Your task to perform on an android device: Open display settings Image 0: 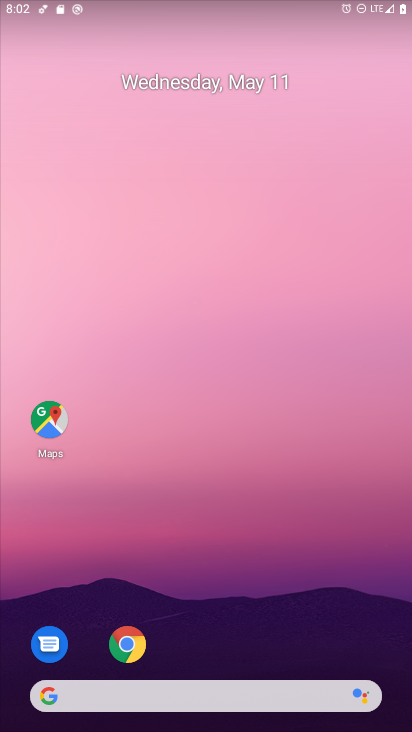
Step 0: drag from (209, 588) to (146, 152)
Your task to perform on an android device: Open display settings Image 1: 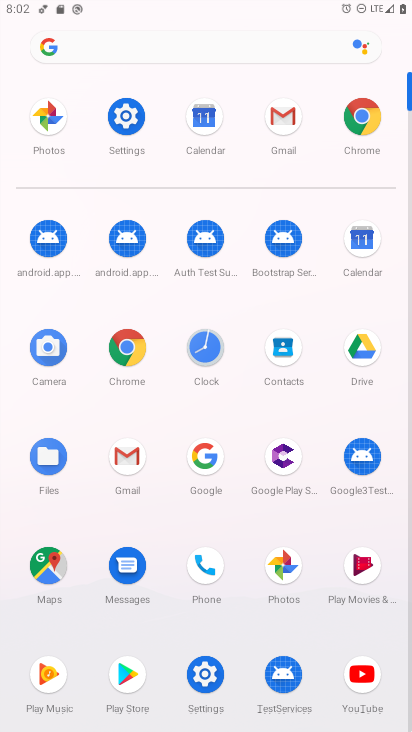
Step 1: click (123, 119)
Your task to perform on an android device: Open display settings Image 2: 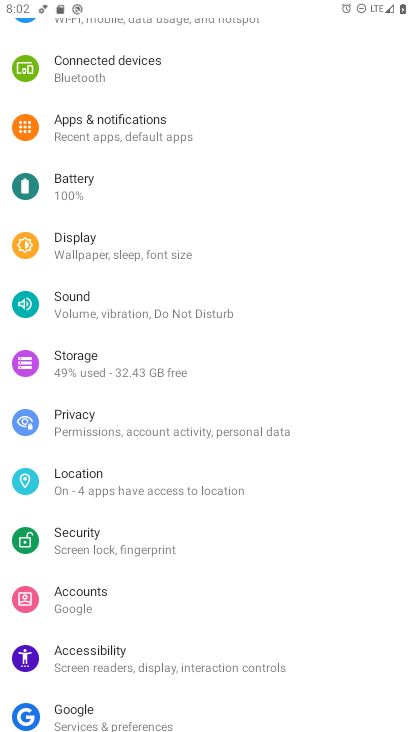
Step 2: click (62, 235)
Your task to perform on an android device: Open display settings Image 3: 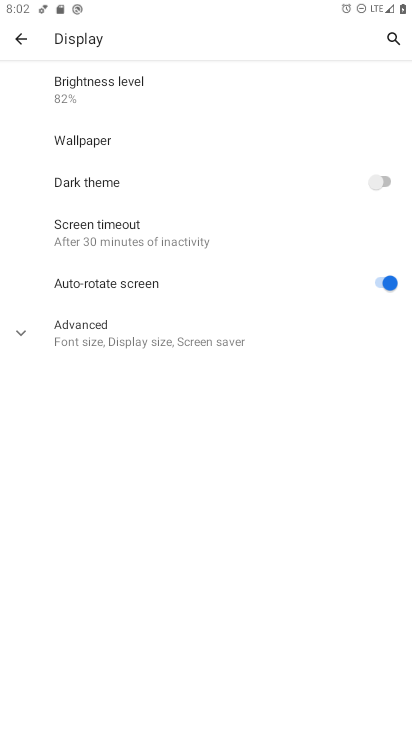
Step 3: task complete